Your task to perform on an android device: Go to accessibility settings Image 0: 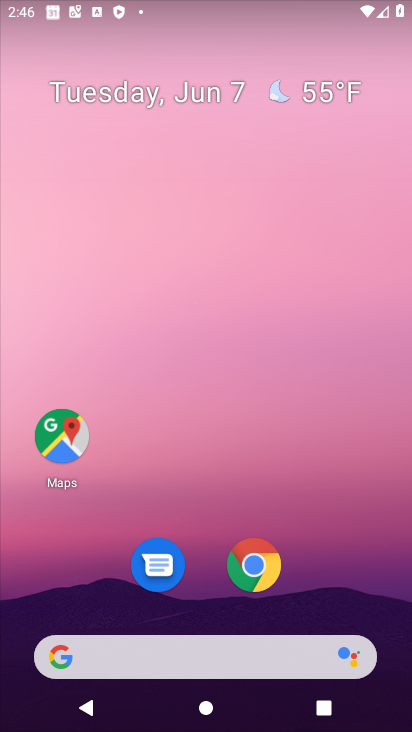
Step 0: drag from (293, 662) to (366, 58)
Your task to perform on an android device: Go to accessibility settings Image 1: 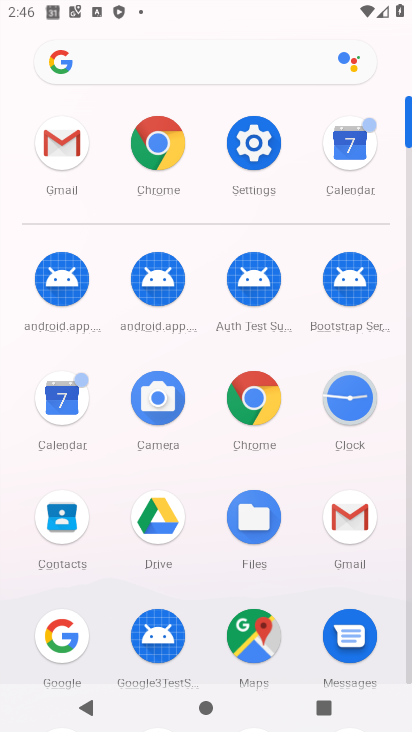
Step 1: click (275, 152)
Your task to perform on an android device: Go to accessibility settings Image 2: 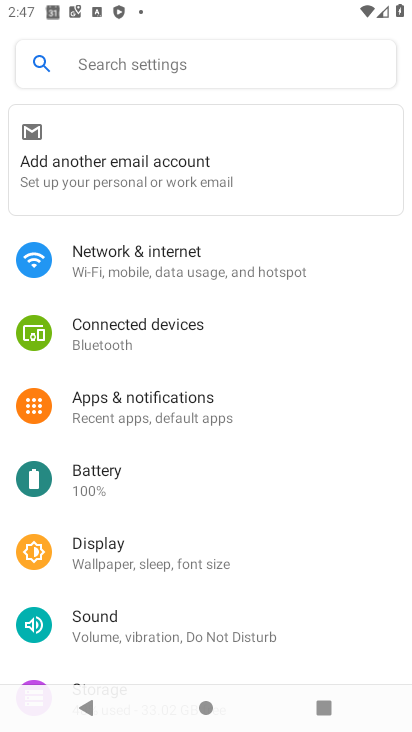
Step 2: drag from (123, 643) to (197, 149)
Your task to perform on an android device: Go to accessibility settings Image 3: 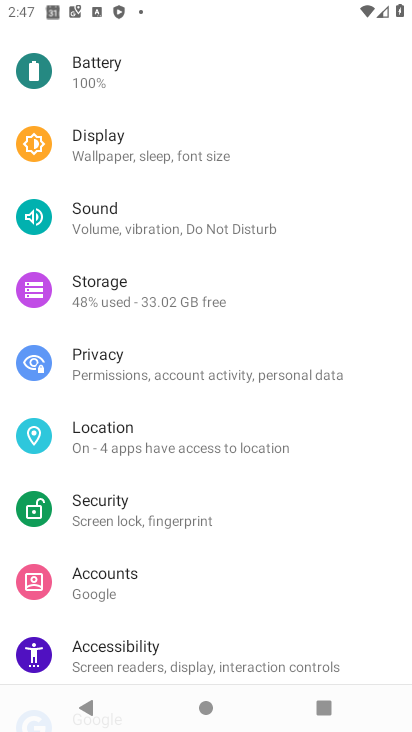
Step 3: click (217, 666)
Your task to perform on an android device: Go to accessibility settings Image 4: 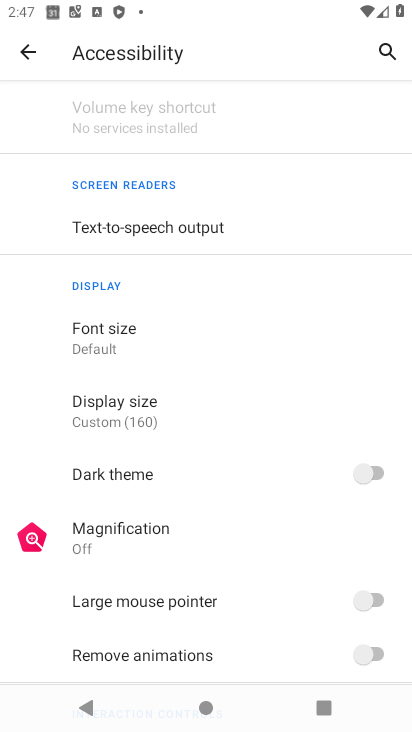
Step 4: task complete